Your task to perform on an android device: read, delete, or share a saved page in the chrome app Image 0: 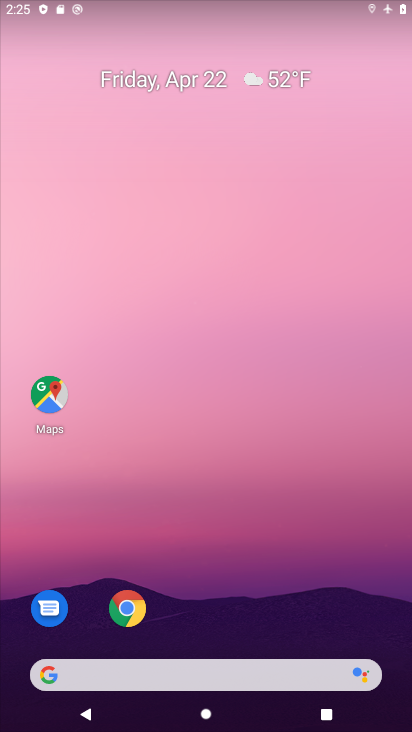
Step 0: click (122, 609)
Your task to perform on an android device: read, delete, or share a saved page in the chrome app Image 1: 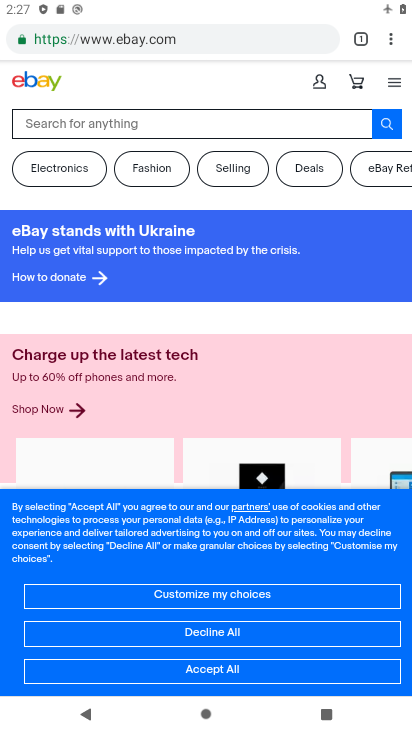
Step 1: click (389, 40)
Your task to perform on an android device: read, delete, or share a saved page in the chrome app Image 2: 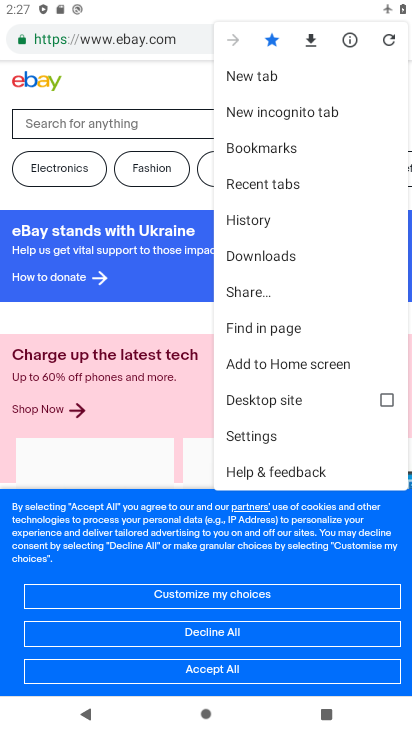
Step 2: click (275, 258)
Your task to perform on an android device: read, delete, or share a saved page in the chrome app Image 3: 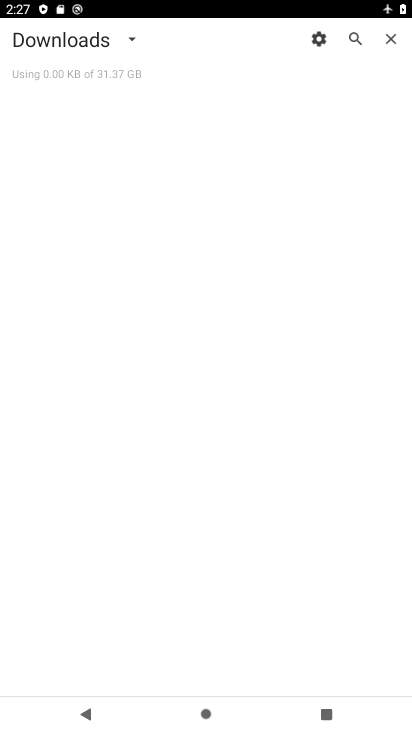
Step 3: click (122, 45)
Your task to perform on an android device: read, delete, or share a saved page in the chrome app Image 4: 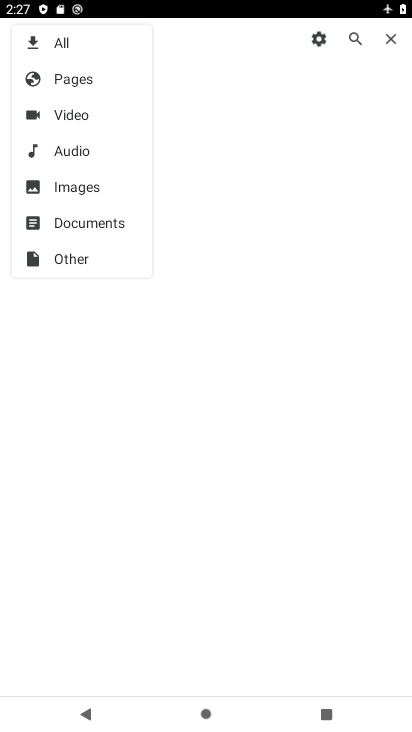
Step 4: click (93, 77)
Your task to perform on an android device: read, delete, or share a saved page in the chrome app Image 5: 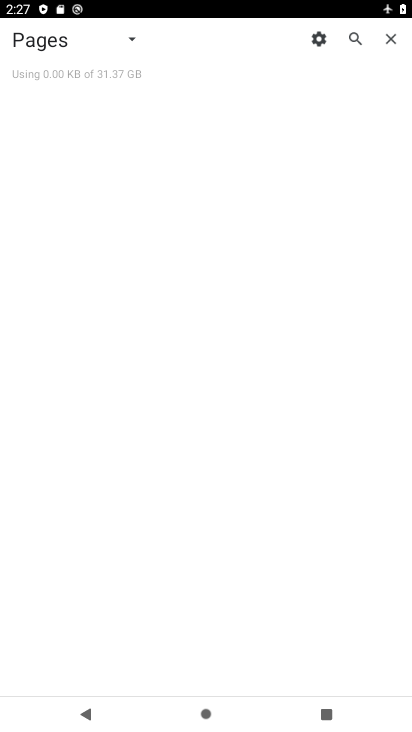
Step 5: task complete